Your task to perform on an android device: Go to settings Image 0: 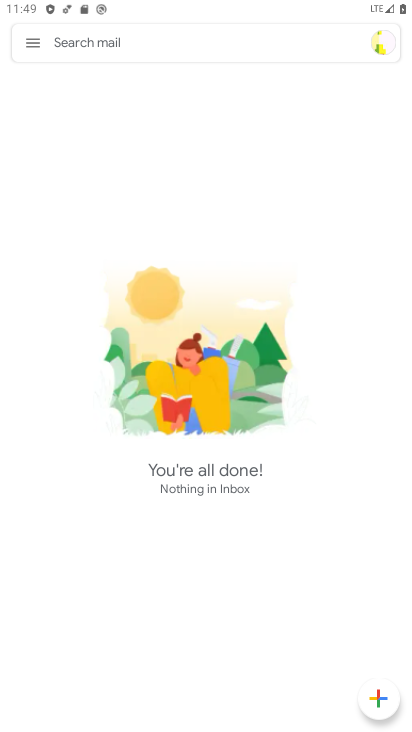
Step 0: press home button
Your task to perform on an android device: Go to settings Image 1: 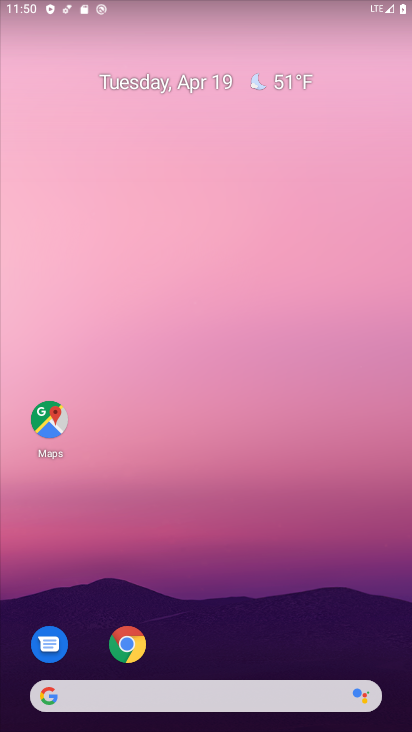
Step 1: drag from (217, 728) to (214, 154)
Your task to perform on an android device: Go to settings Image 2: 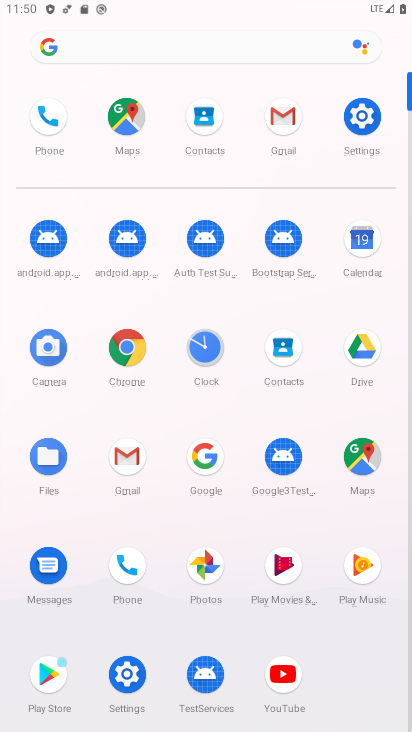
Step 2: click (126, 668)
Your task to perform on an android device: Go to settings Image 3: 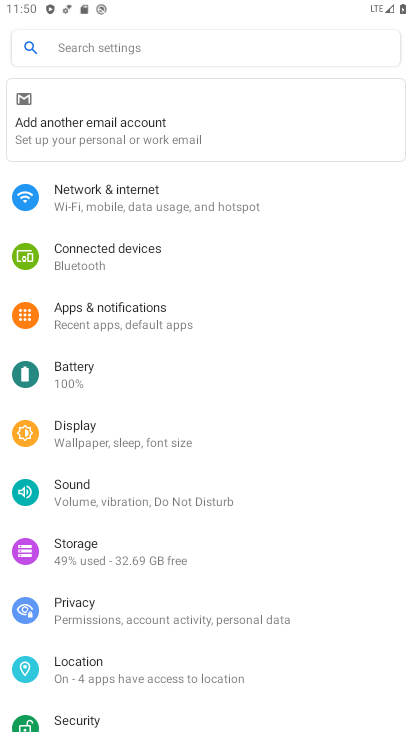
Step 3: task complete